Your task to perform on an android device: toggle show notifications on the lock screen Image 0: 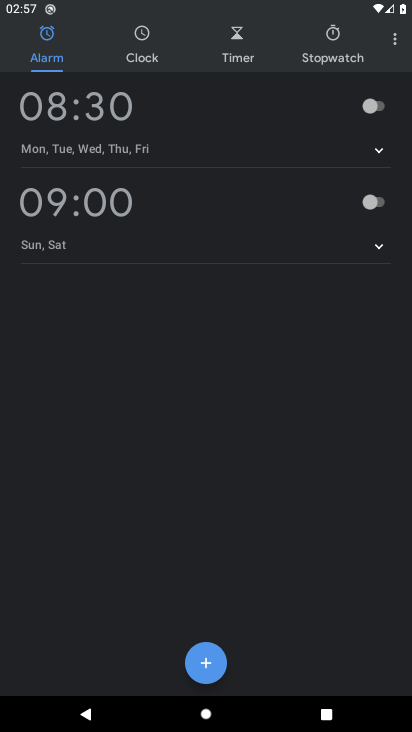
Step 0: press home button
Your task to perform on an android device: toggle show notifications on the lock screen Image 1: 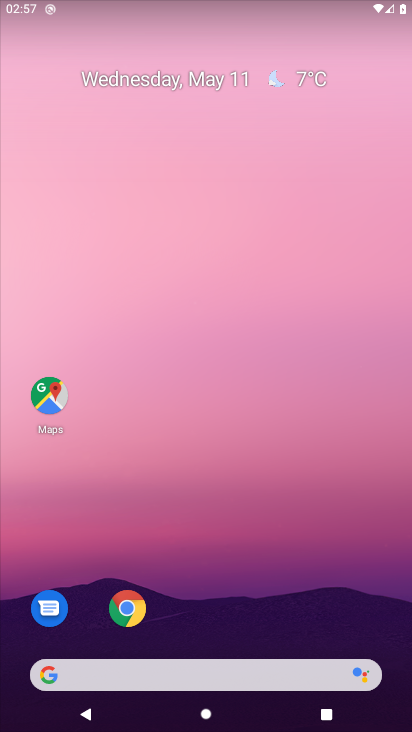
Step 1: drag from (201, 634) to (238, 238)
Your task to perform on an android device: toggle show notifications on the lock screen Image 2: 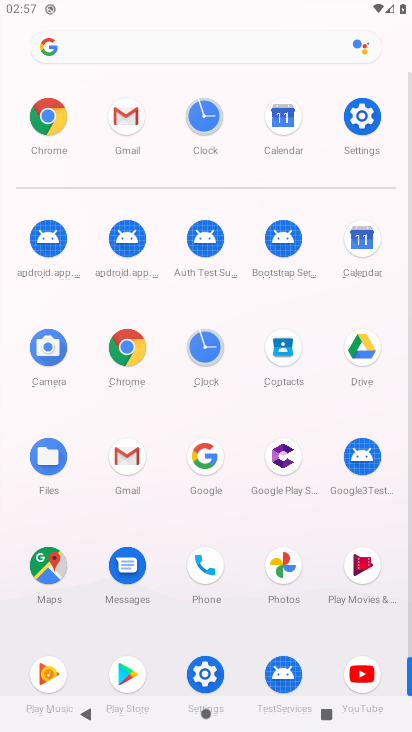
Step 2: click (361, 116)
Your task to perform on an android device: toggle show notifications on the lock screen Image 3: 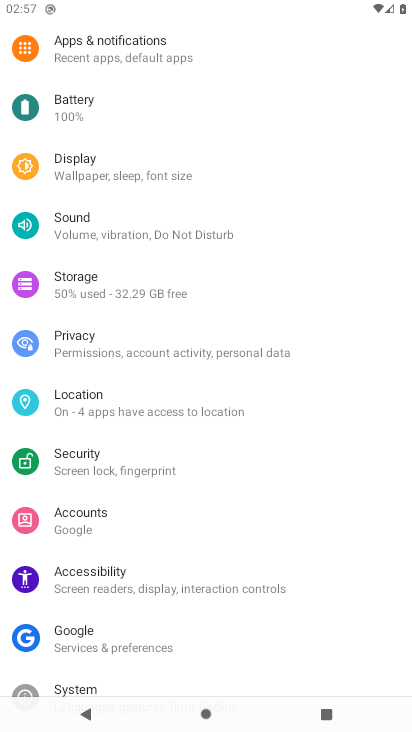
Step 3: click (140, 47)
Your task to perform on an android device: toggle show notifications on the lock screen Image 4: 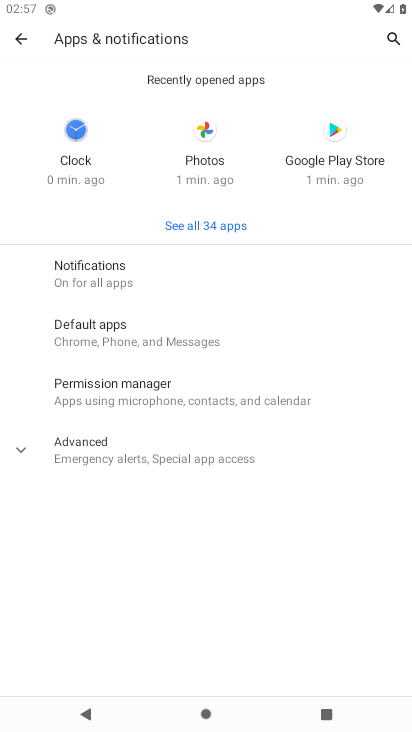
Step 4: click (28, 441)
Your task to perform on an android device: toggle show notifications on the lock screen Image 5: 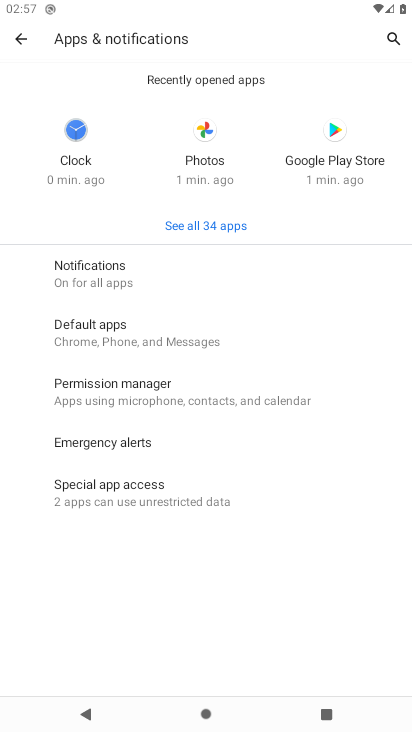
Step 5: click (141, 279)
Your task to perform on an android device: toggle show notifications on the lock screen Image 6: 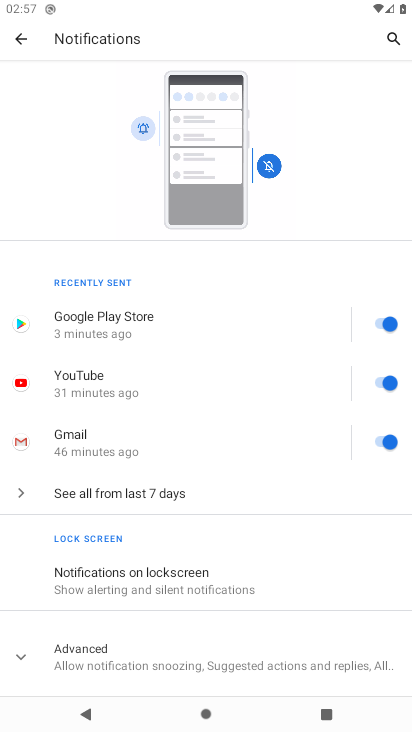
Step 6: click (196, 583)
Your task to perform on an android device: toggle show notifications on the lock screen Image 7: 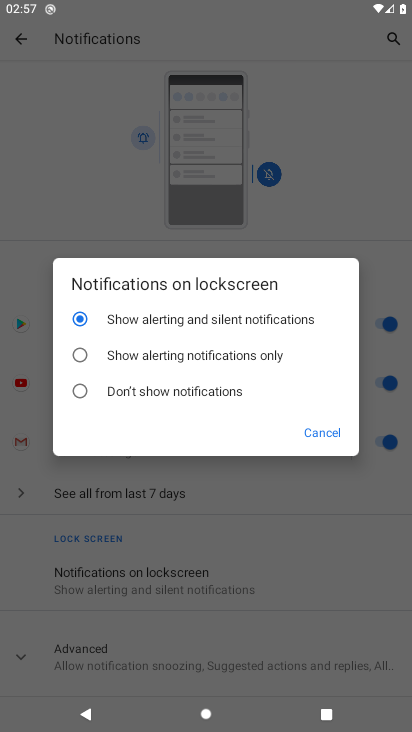
Step 7: click (83, 358)
Your task to perform on an android device: toggle show notifications on the lock screen Image 8: 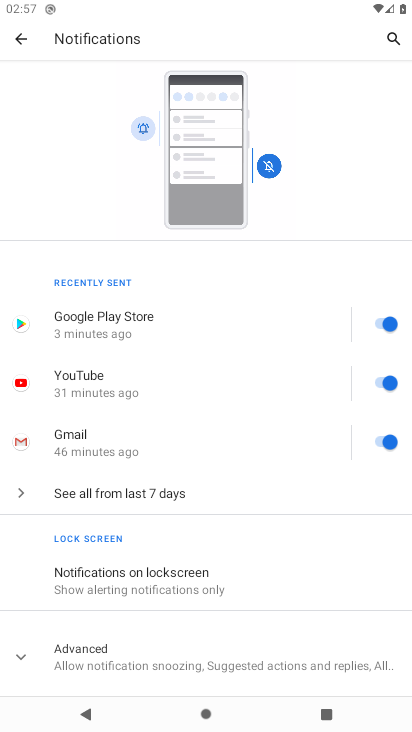
Step 8: task complete